Your task to perform on an android device: turn on wifi Image 0: 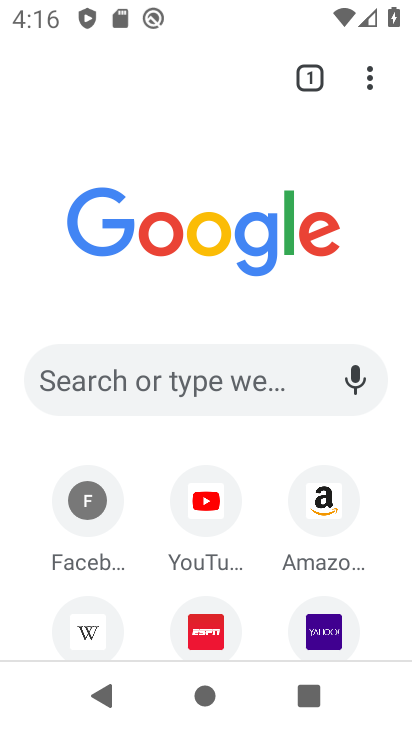
Step 0: press home button
Your task to perform on an android device: turn on wifi Image 1: 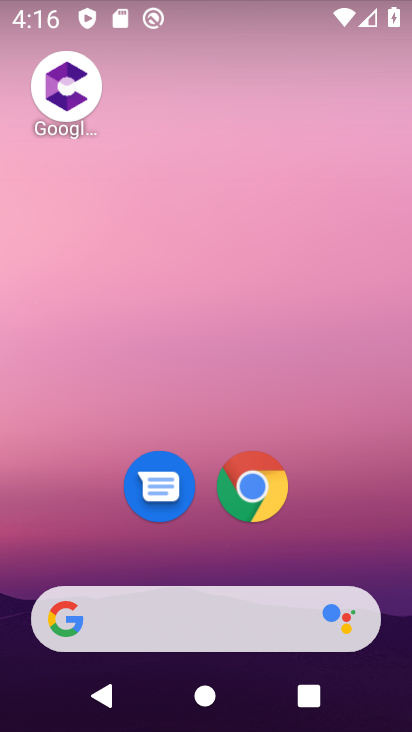
Step 1: drag from (210, 505) to (212, 69)
Your task to perform on an android device: turn on wifi Image 2: 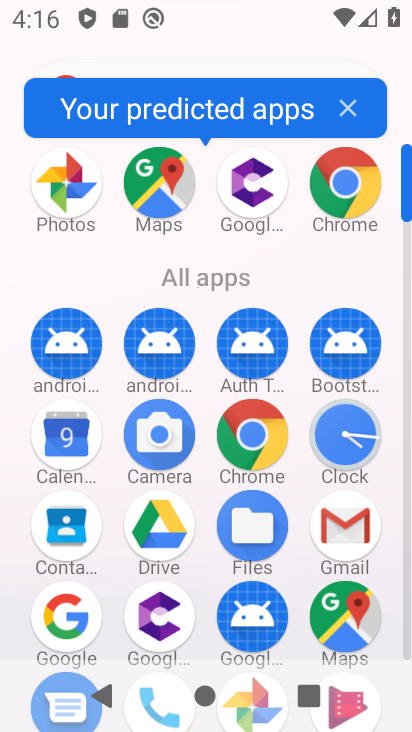
Step 2: drag from (110, 568) to (202, 182)
Your task to perform on an android device: turn on wifi Image 3: 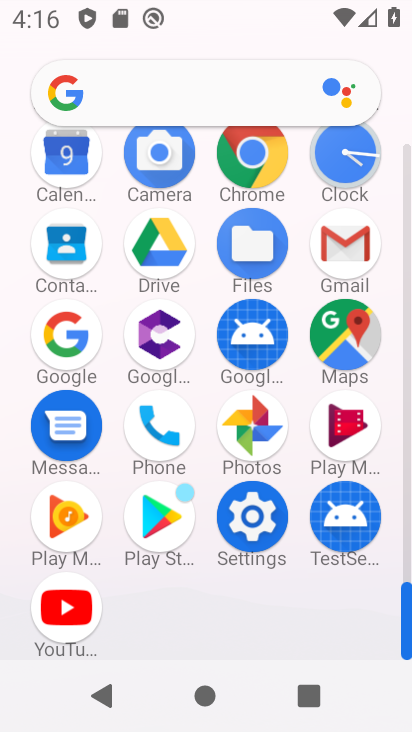
Step 3: click (252, 517)
Your task to perform on an android device: turn on wifi Image 4: 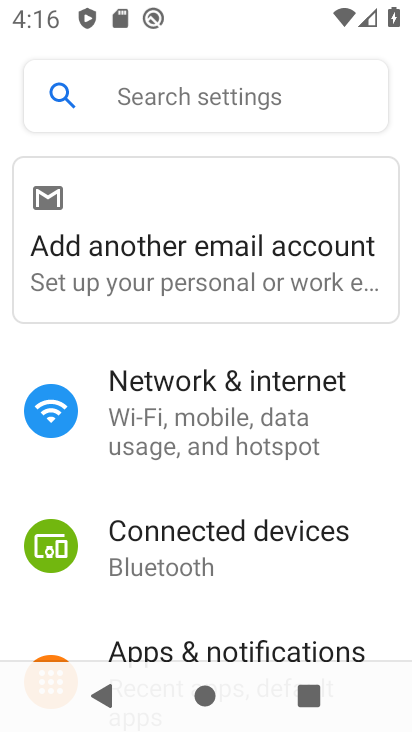
Step 4: click (161, 445)
Your task to perform on an android device: turn on wifi Image 5: 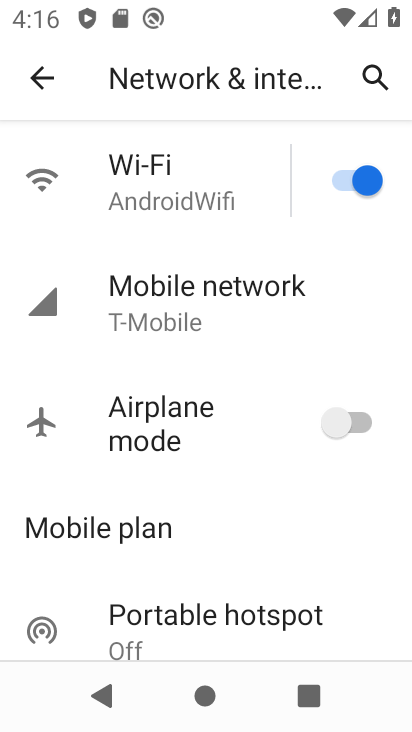
Step 5: task complete